Your task to perform on an android device: Open display settings Image 0: 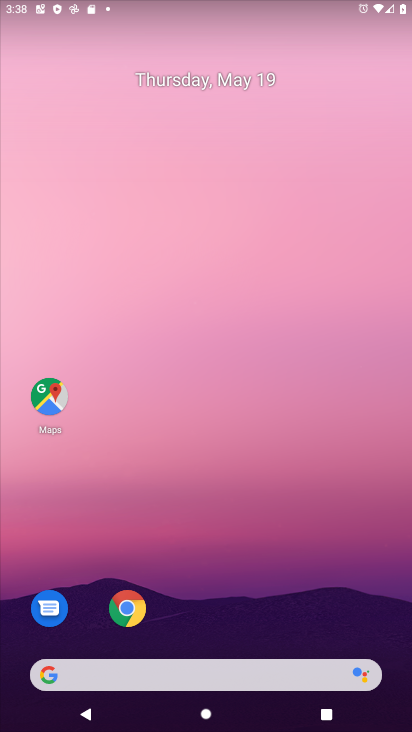
Step 0: drag from (231, 529) to (255, 0)
Your task to perform on an android device: Open display settings Image 1: 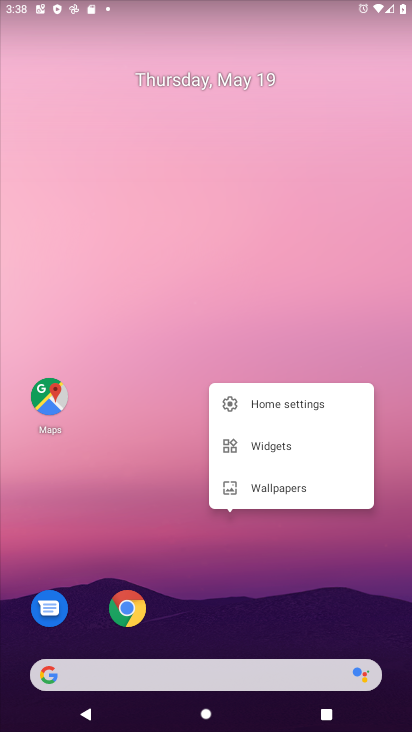
Step 1: click (174, 462)
Your task to perform on an android device: Open display settings Image 2: 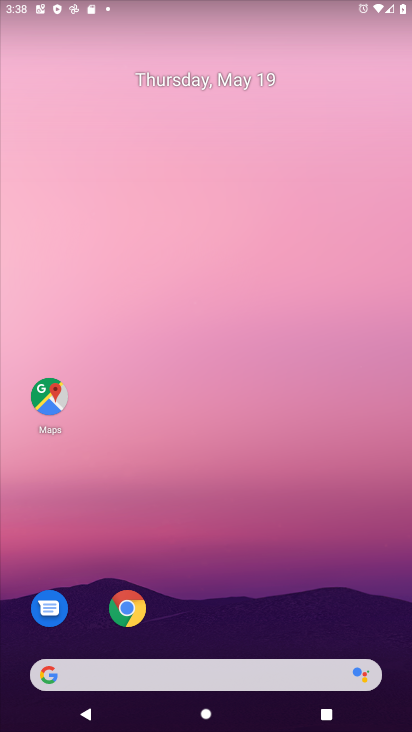
Step 2: drag from (171, 574) to (253, 2)
Your task to perform on an android device: Open display settings Image 3: 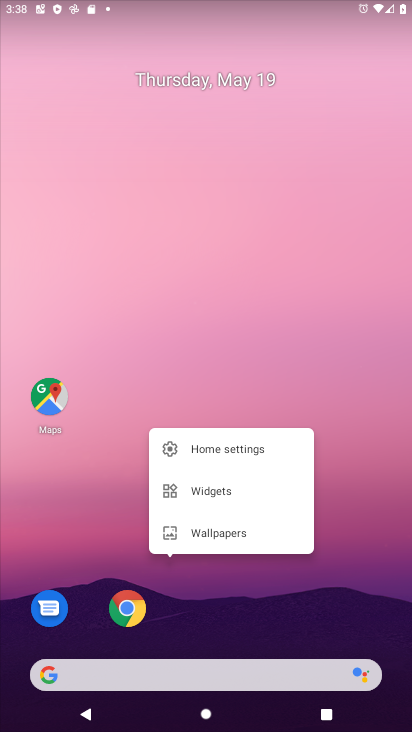
Step 3: click (340, 524)
Your task to perform on an android device: Open display settings Image 4: 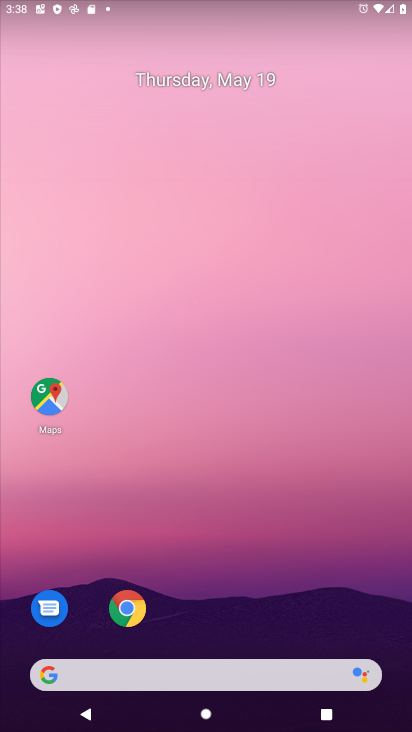
Step 4: drag from (258, 604) to (269, 72)
Your task to perform on an android device: Open display settings Image 5: 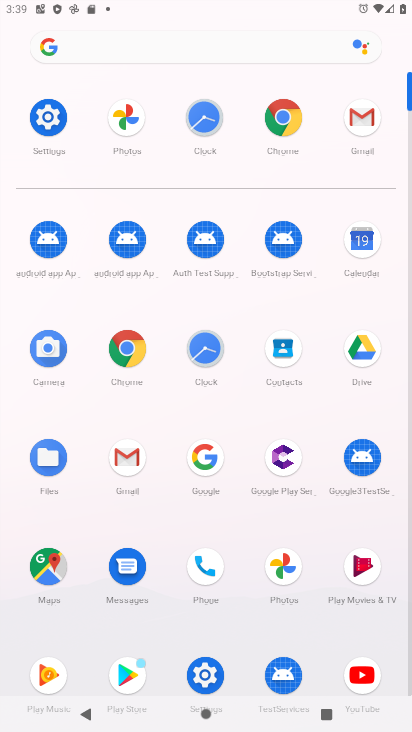
Step 5: click (40, 117)
Your task to perform on an android device: Open display settings Image 6: 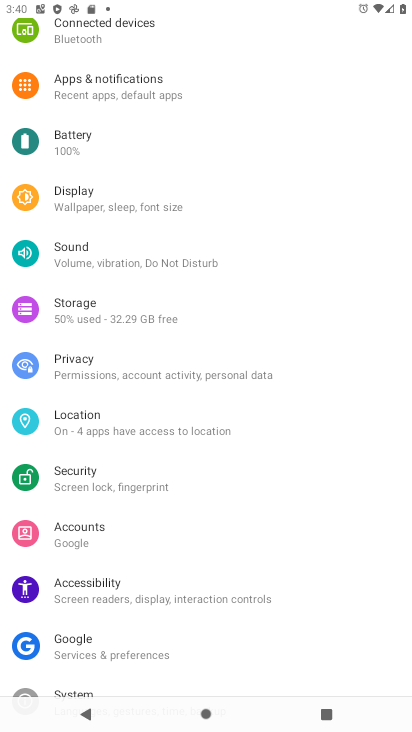
Step 6: click (118, 217)
Your task to perform on an android device: Open display settings Image 7: 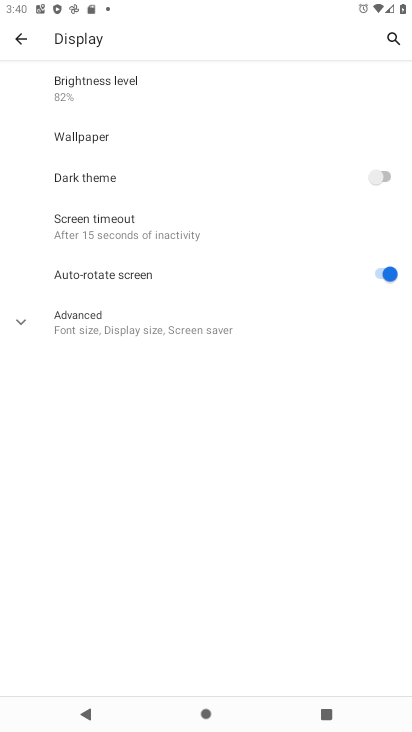
Step 7: task complete